Your task to perform on an android device: remove spam from my inbox in the gmail app Image 0: 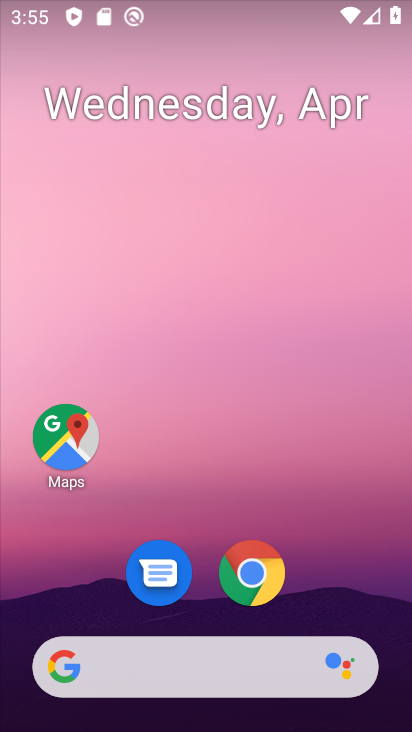
Step 0: click (295, 192)
Your task to perform on an android device: remove spam from my inbox in the gmail app Image 1: 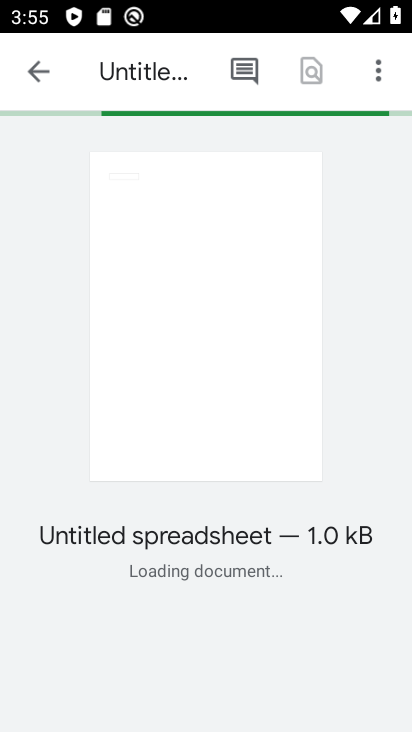
Step 1: press home button
Your task to perform on an android device: remove spam from my inbox in the gmail app Image 2: 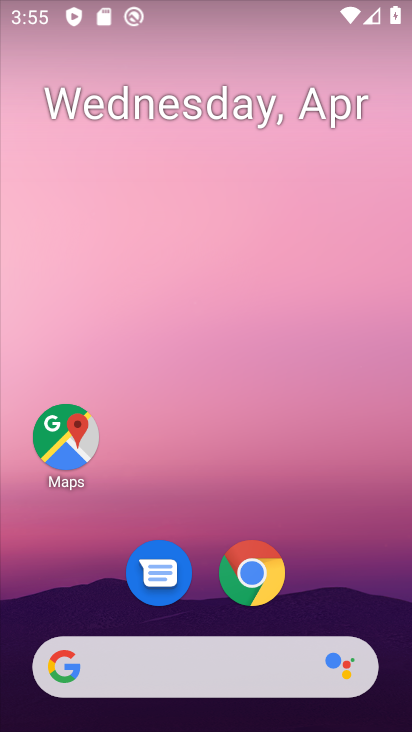
Step 2: drag from (361, 611) to (245, 146)
Your task to perform on an android device: remove spam from my inbox in the gmail app Image 3: 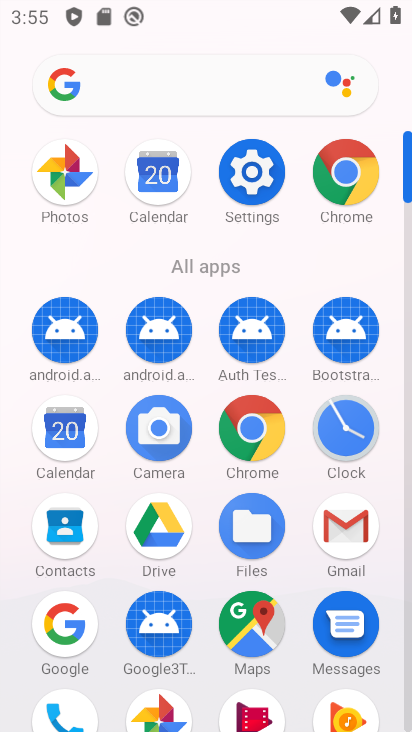
Step 3: click (350, 533)
Your task to perform on an android device: remove spam from my inbox in the gmail app Image 4: 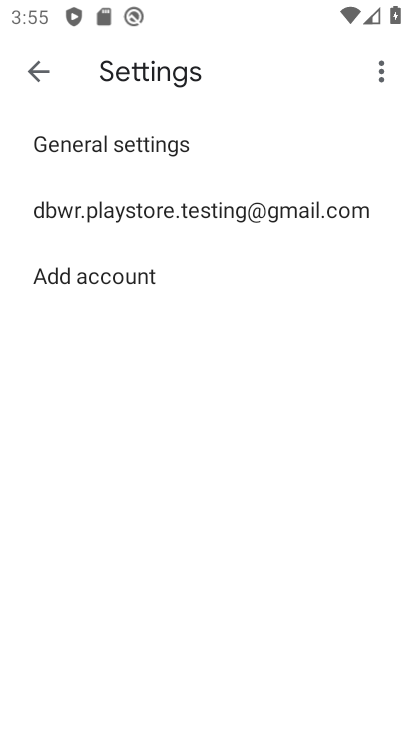
Step 4: click (33, 71)
Your task to perform on an android device: remove spam from my inbox in the gmail app Image 5: 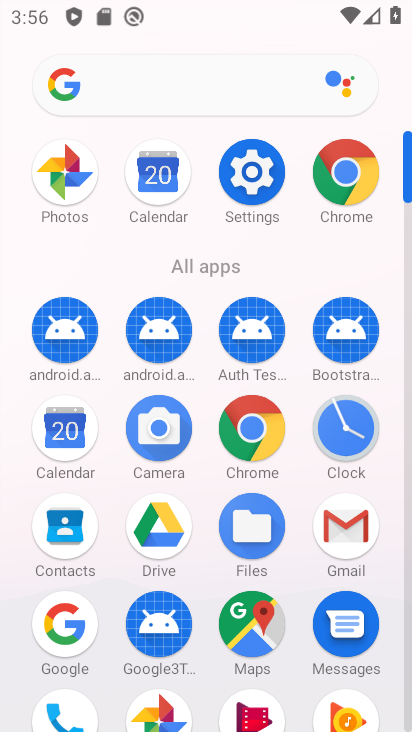
Step 5: click (345, 530)
Your task to perform on an android device: remove spam from my inbox in the gmail app Image 6: 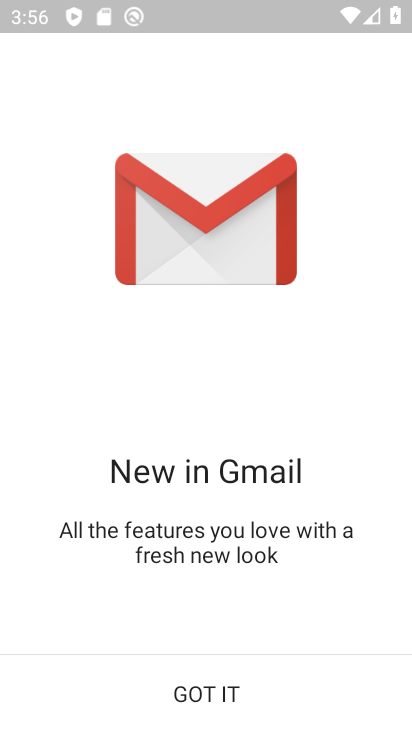
Step 6: click (205, 689)
Your task to perform on an android device: remove spam from my inbox in the gmail app Image 7: 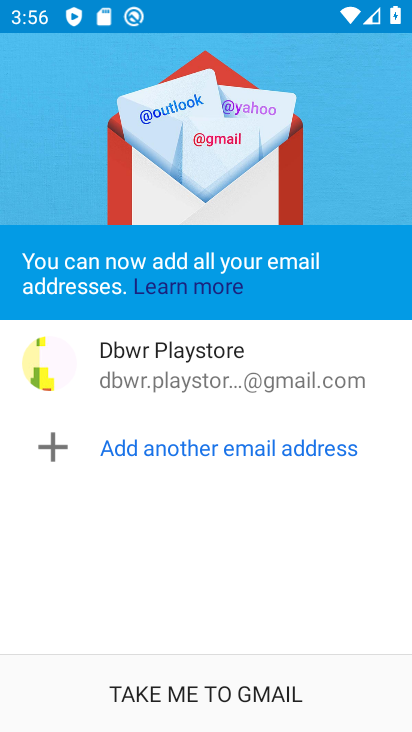
Step 7: click (204, 687)
Your task to perform on an android device: remove spam from my inbox in the gmail app Image 8: 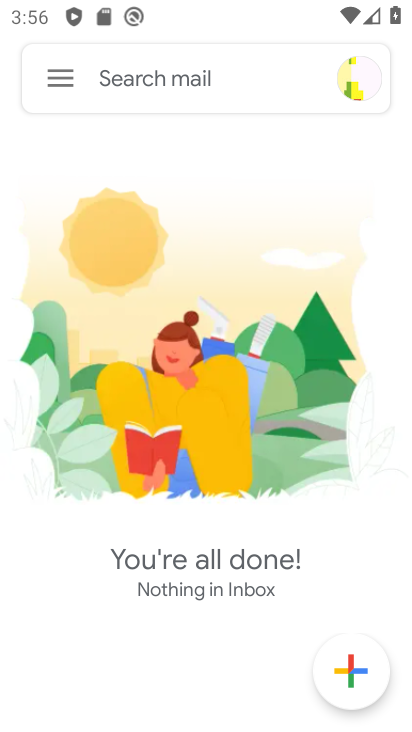
Step 8: click (59, 76)
Your task to perform on an android device: remove spam from my inbox in the gmail app Image 9: 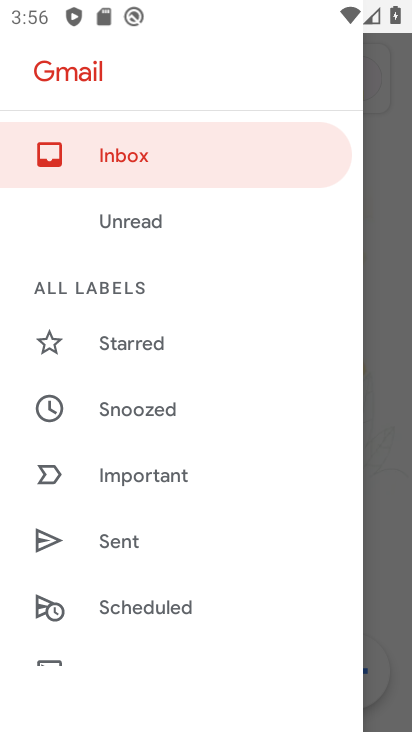
Step 9: drag from (243, 635) to (188, 301)
Your task to perform on an android device: remove spam from my inbox in the gmail app Image 10: 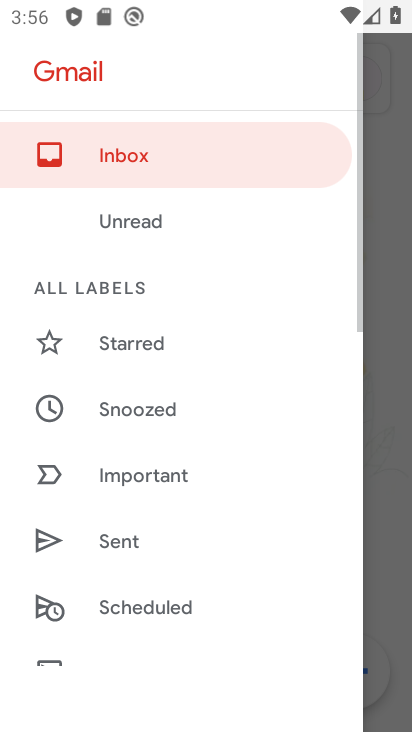
Step 10: drag from (217, 624) to (189, 306)
Your task to perform on an android device: remove spam from my inbox in the gmail app Image 11: 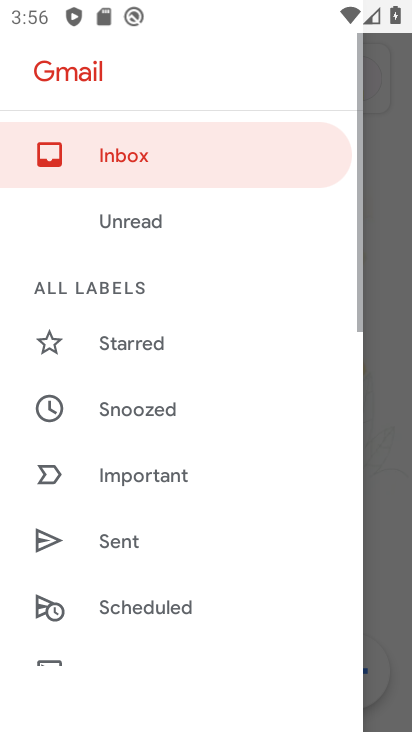
Step 11: drag from (247, 448) to (242, 248)
Your task to perform on an android device: remove spam from my inbox in the gmail app Image 12: 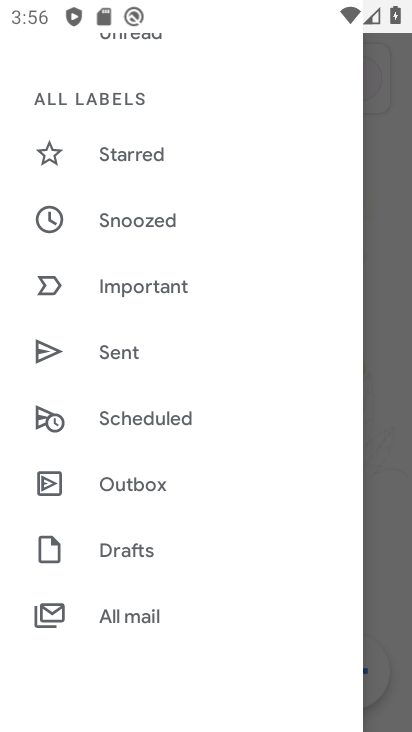
Step 12: drag from (298, 330) to (297, 253)
Your task to perform on an android device: remove spam from my inbox in the gmail app Image 13: 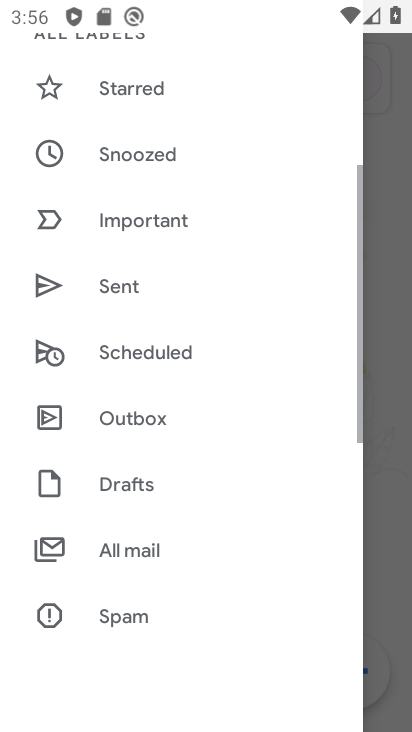
Step 13: click (107, 620)
Your task to perform on an android device: remove spam from my inbox in the gmail app Image 14: 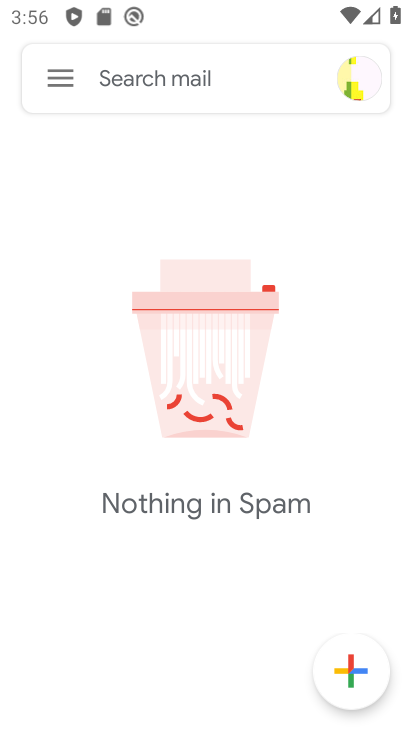
Step 14: task complete